Your task to perform on an android device: change the clock display to show seconds Image 0: 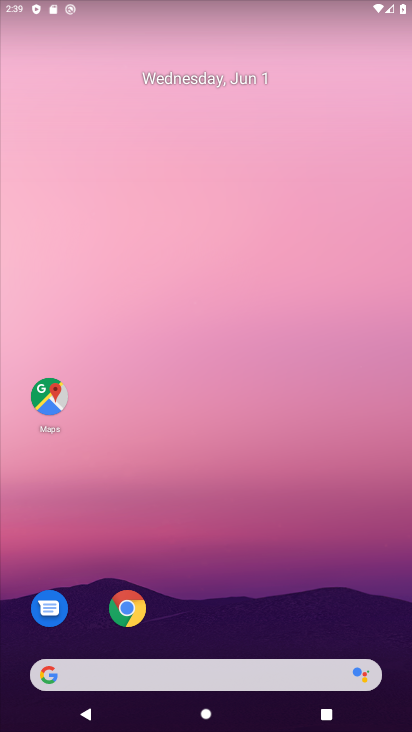
Step 0: drag from (252, 676) to (336, 275)
Your task to perform on an android device: change the clock display to show seconds Image 1: 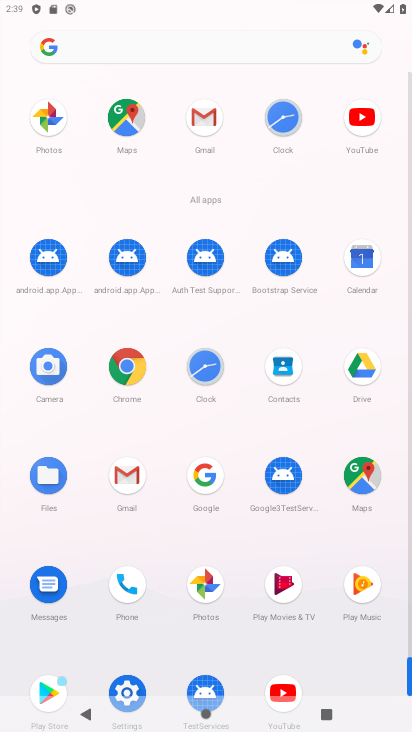
Step 1: click (209, 376)
Your task to perform on an android device: change the clock display to show seconds Image 2: 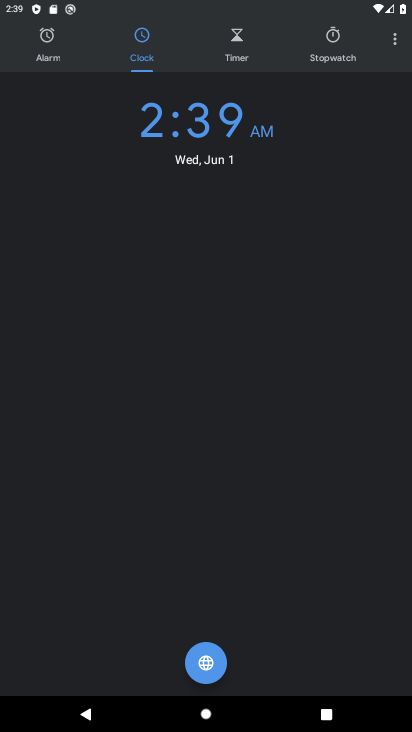
Step 2: click (383, 48)
Your task to perform on an android device: change the clock display to show seconds Image 3: 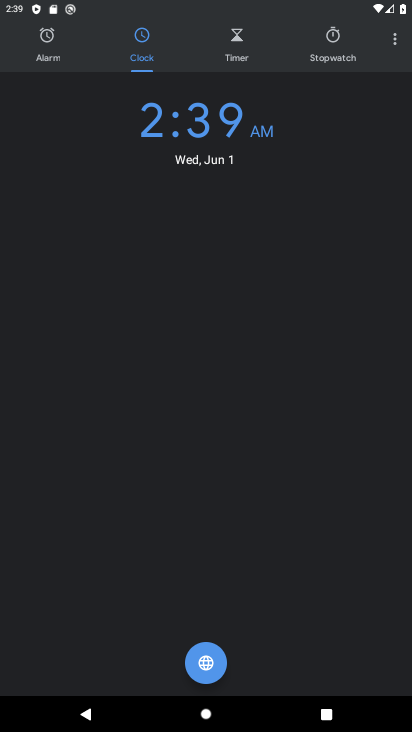
Step 3: click (393, 41)
Your task to perform on an android device: change the clock display to show seconds Image 4: 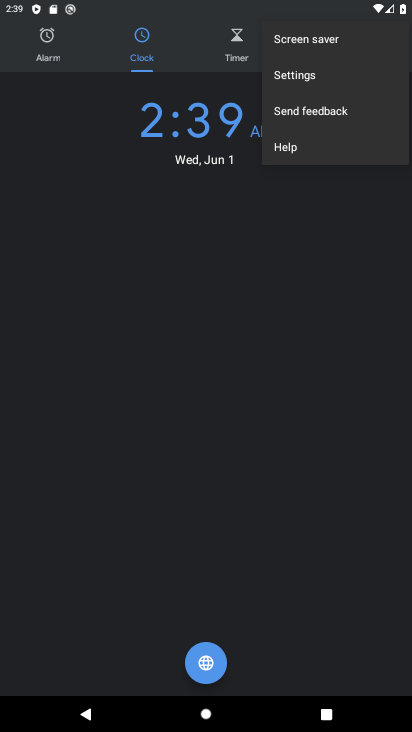
Step 4: click (374, 70)
Your task to perform on an android device: change the clock display to show seconds Image 5: 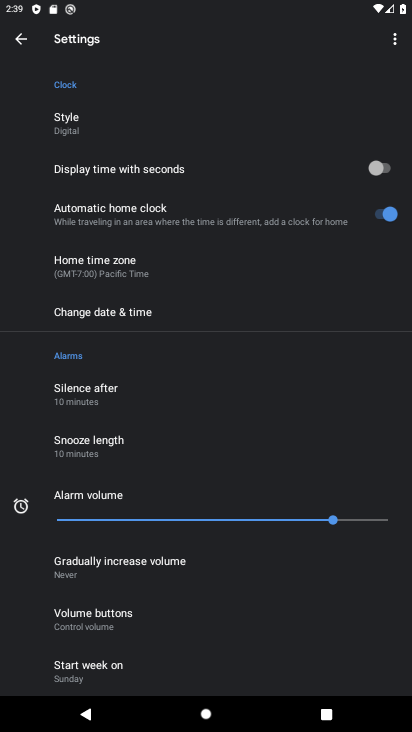
Step 5: click (391, 172)
Your task to perform on an android device: change the clock display to show seconds Image 6: 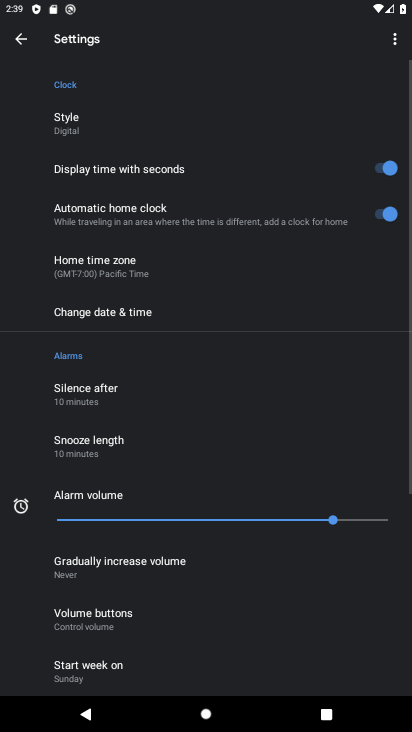
Step 6: task complete